Your task to perform on an android device: check battery use Image 0: 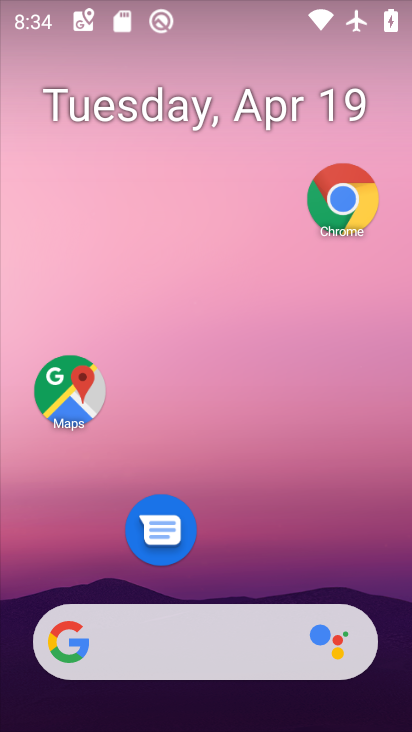
Step 0: drag from (220, 530) to (276, 185)
Your task to perform on an android device: check battery use Image 1: 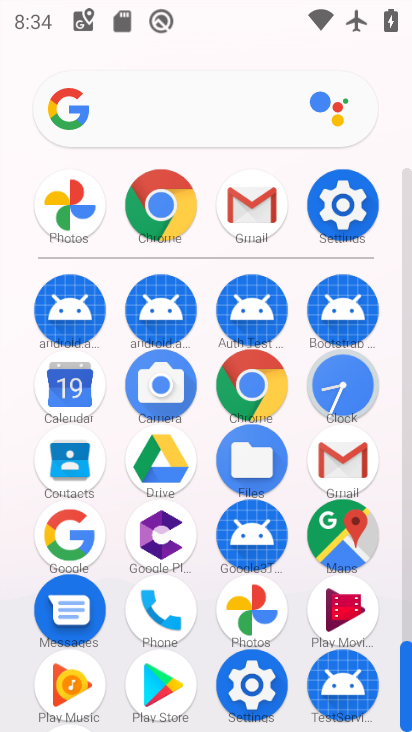
Step 1: click (256, 680)
Your task to perform on an android device: check battery use Image 2: 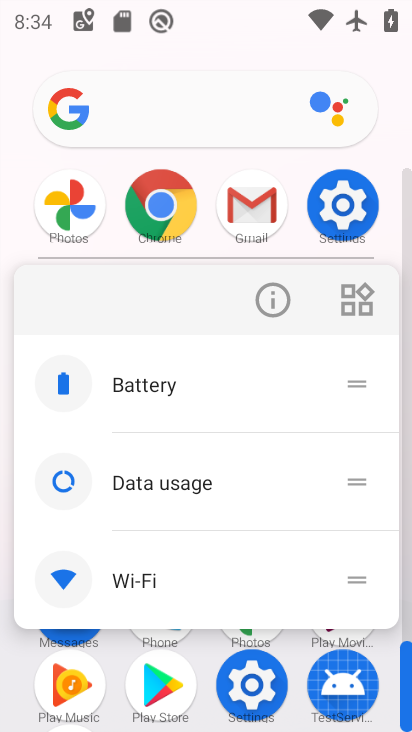
Step 2: click (264, 299)
Your task to perform on an android device: check battery use Image 3: 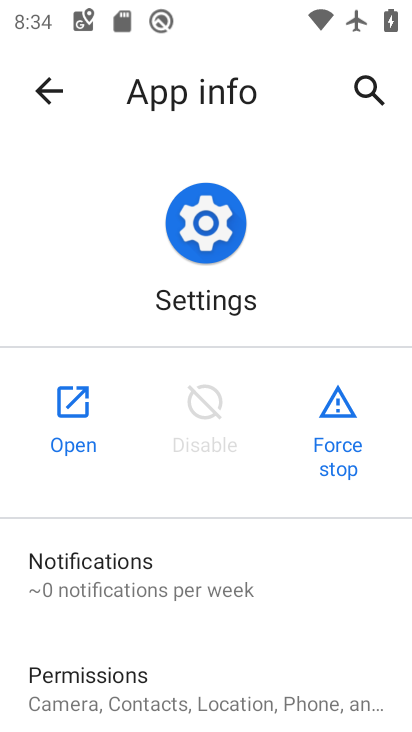
Step 3: click (65, 407)
Your task to perform on an android device: check battery use Image 4: 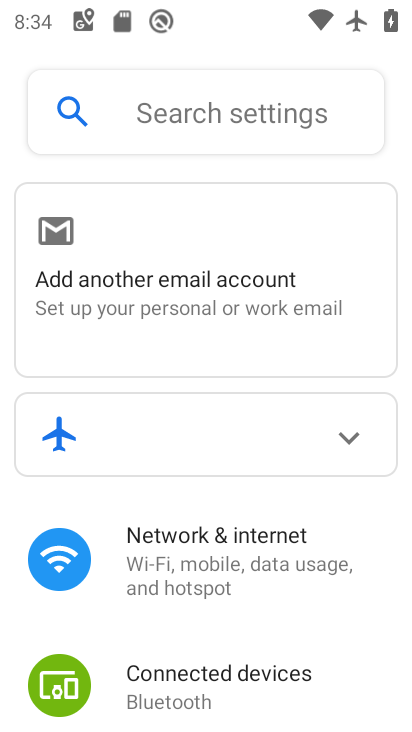
Step 4: drag from (274, 611) to (327, 334)
Your task to perform on an android device: check battery use Image 5: 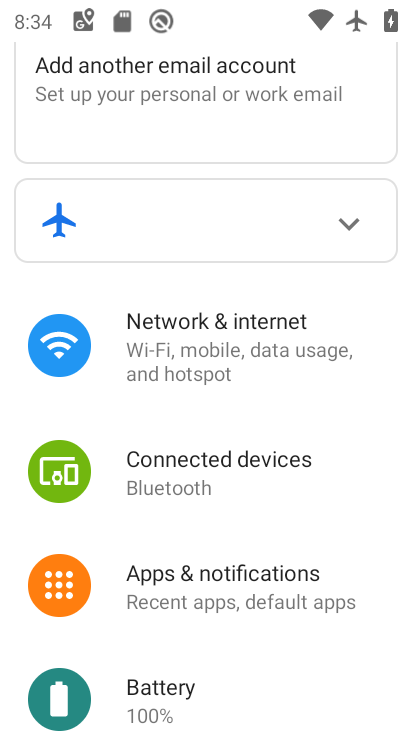
Step 5: click (186, 683)
Your task to perform on an android device: check battery use Image 6: 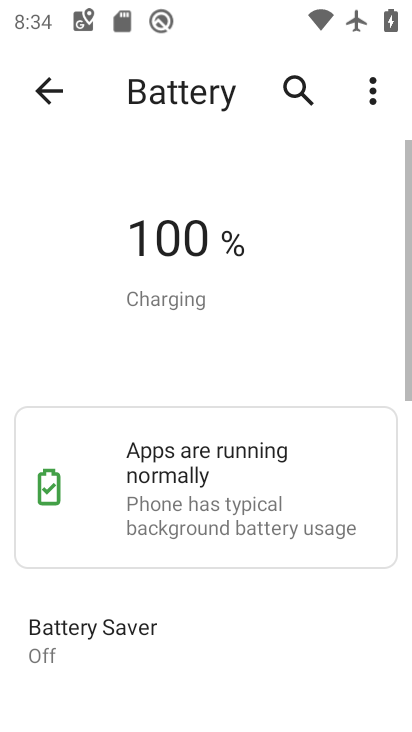
Step 6: drag from (228, 640) to (272, 379)
Your task to perform on an android device: check battery use Image 7: 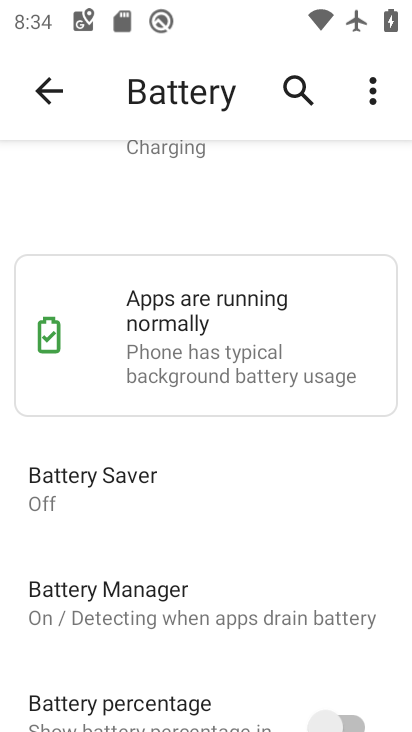
Step 7: click (372, 97)
Your task to perform on an android device: check battery use Image 8: 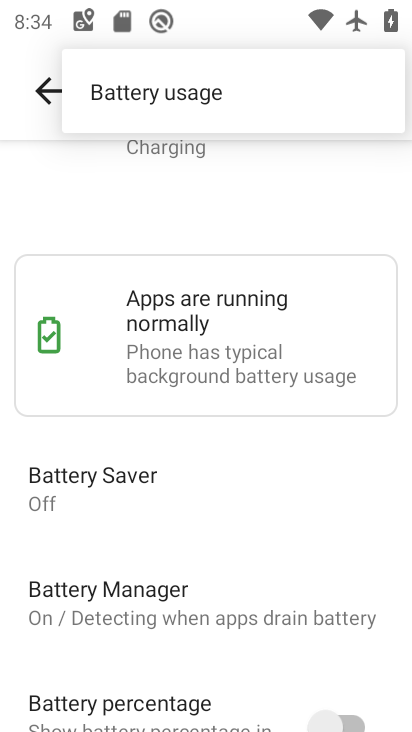
Step 8: click (251, 105)
Your task to perform on an android device: check battery use Image 9: 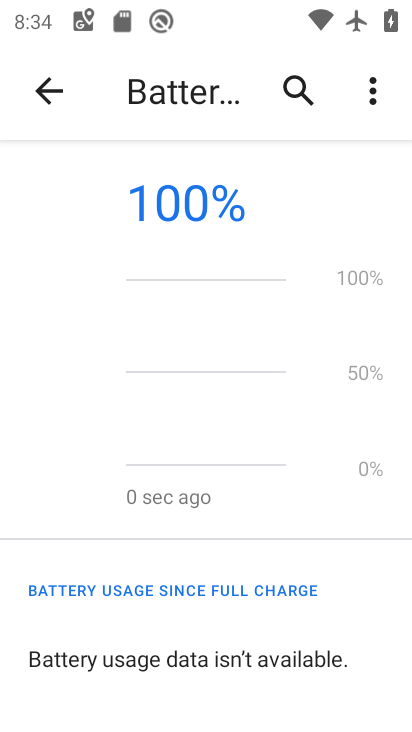
Step 9: task complete